Your task to perform on an android device: Toggle the flashlight Image 0: 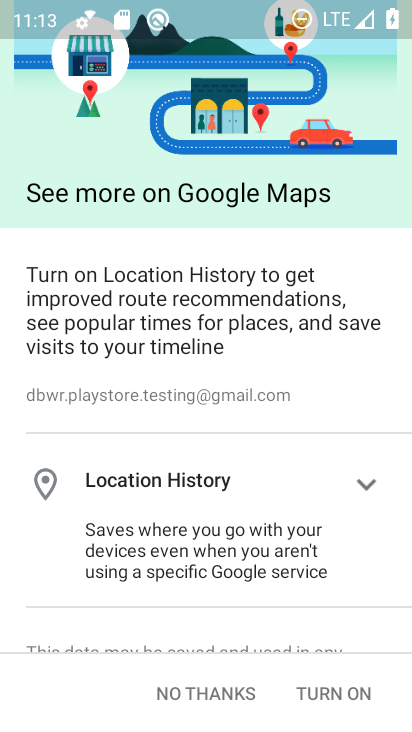
Step 0: press home button
Your task to perform on an android device: Toggle the flashlight Image 1: 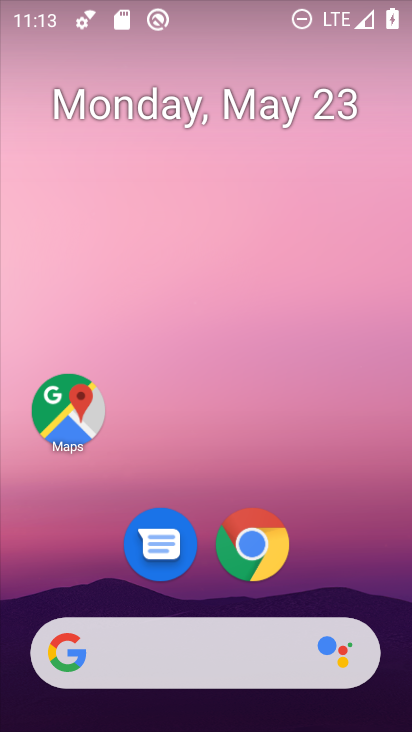
Step 1: drag from (229, 19) to (230, 506)
Your task to perform on an android device: Toggle the flashlight Image 2: 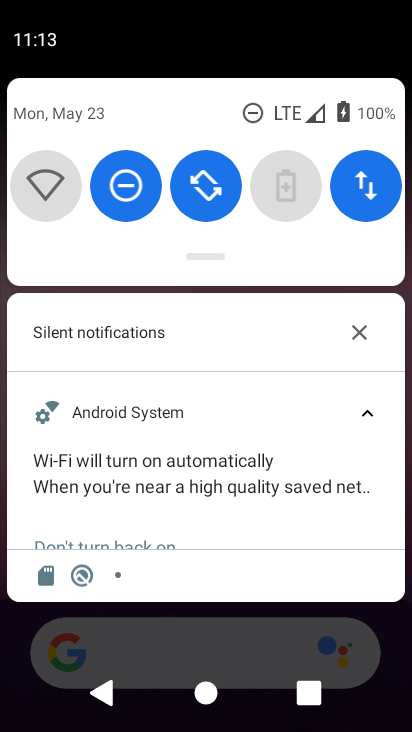
Step 2: drag from (205, 251) to (185, 516)
Your task to perform on an android device: Toggle the flashlight Image 3: 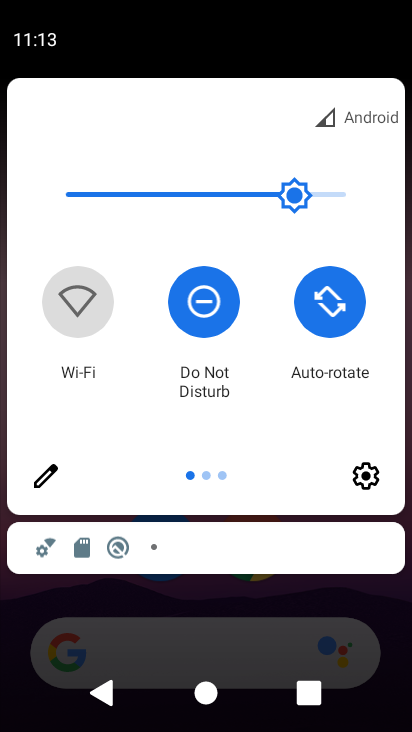
Step 3: click (40, 471)
Your task to perform on an android device: Toggle the flashlight Image 4: 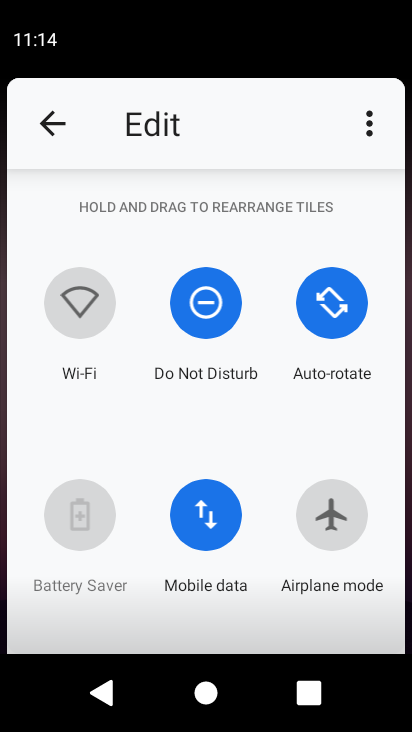
Step 4: task complete